Your task to perform on an android device: set the timer Image 0: 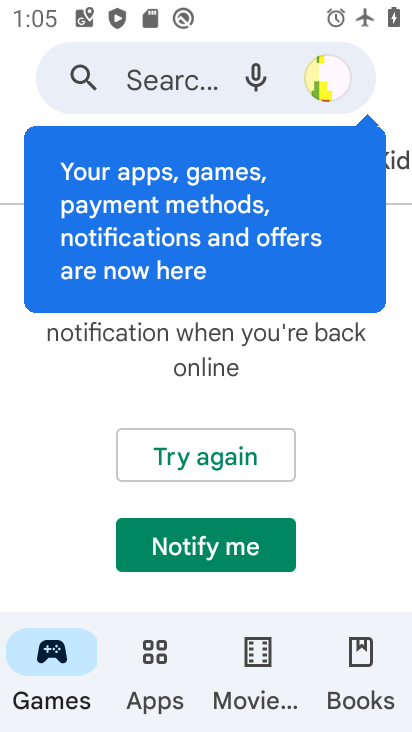
Step 0: press home button
Your task to perform on an android device: set the timer Image 1: 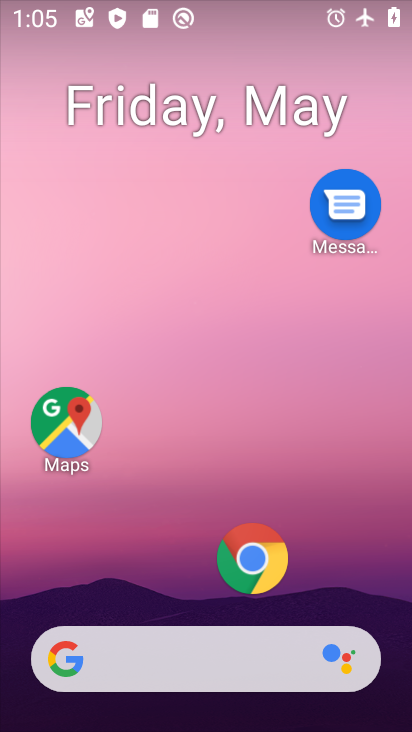
Step 1: drag from (209, 513) to (200, 184)
Your task to perform on an android device: set the timer Image 2: 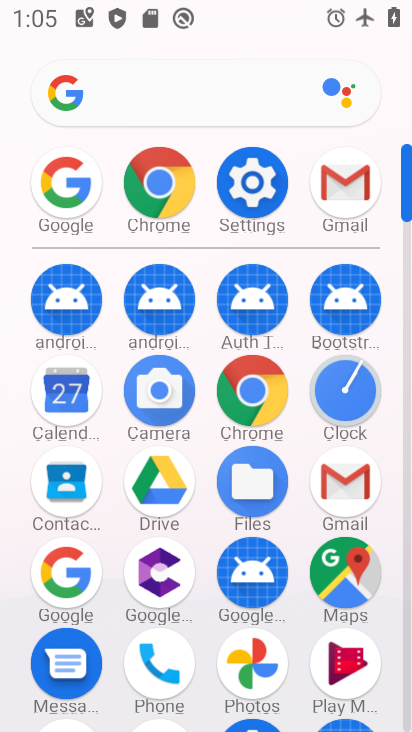
Step 2: click (362, 375)
Your task to perform on an android device: set the timer Image 3: 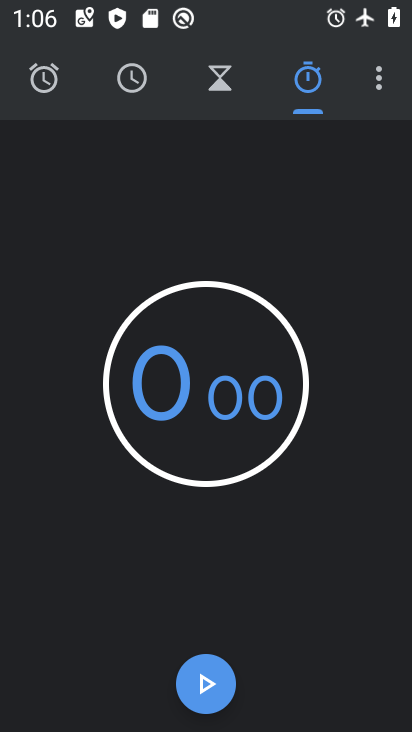
Step 3: click (217, 95)
Your task to perform on an android device: set the timer Image 4: 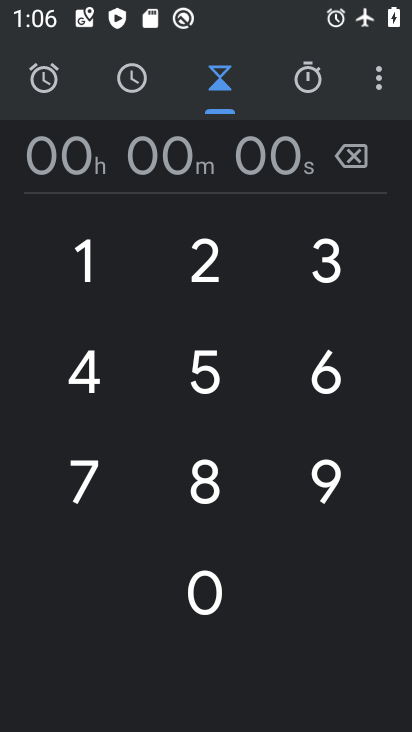
Step 4: click (214, 267)
Your task to perform on an android device: set the timer Image 5: 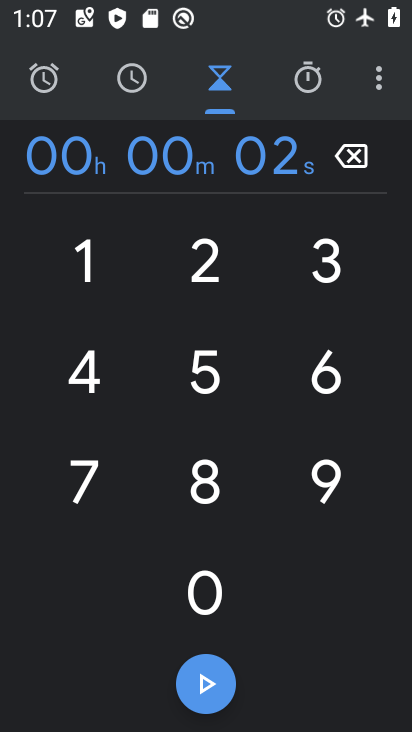
Step 5: click (212, 674)
Your task to perform on an android device: set the timer Image 6: 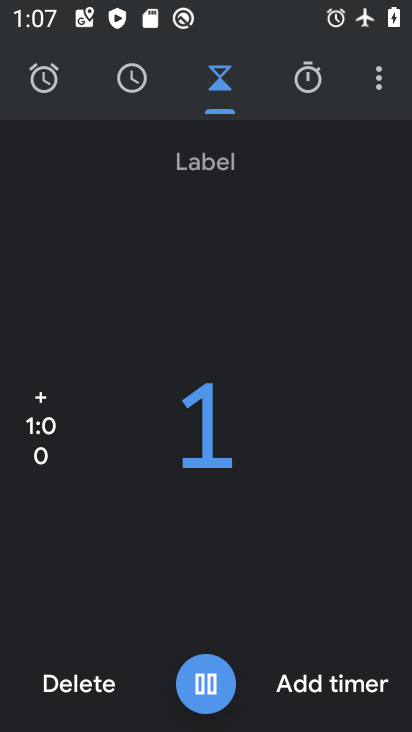
Step 6: task complete